Your task to perform on an android device: see creations saved in the google photos Image 0: 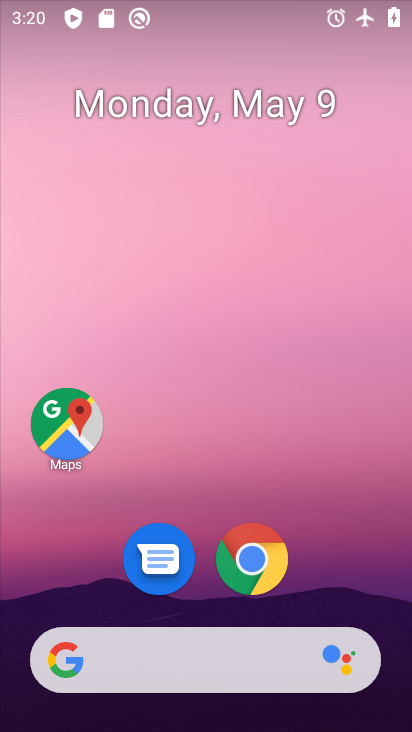
Step 0: drag from (231, 712) to (229, 183)
Your task to perform on an android device: see creations saved in the google photos Image 1: 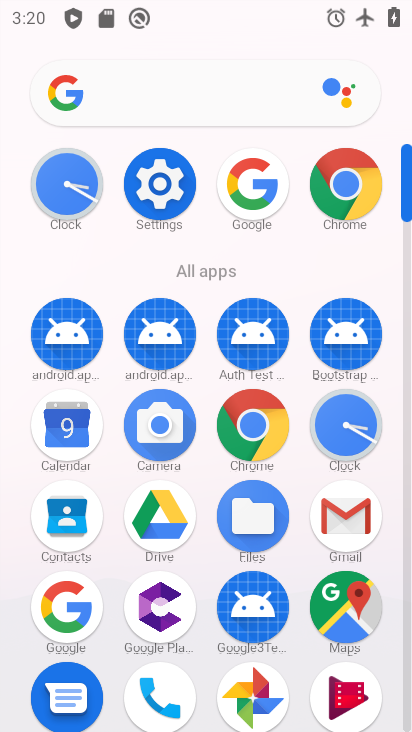
Step 1: click (257, 697)
Your task to perform on an android device: see creations saved in the google photos Image 2: 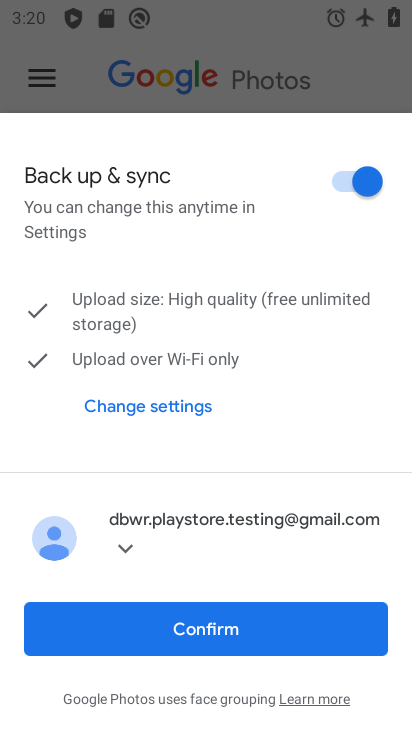
Step 2: click (228, 634)
Your task to perform on an android device: see creations saved in the google photos Image 3: 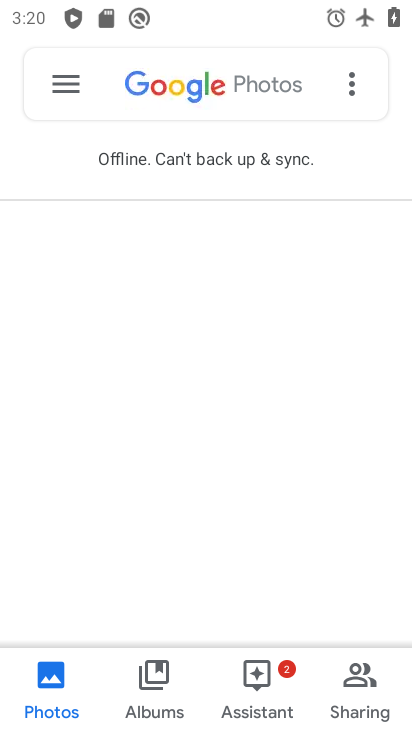
Step 3: click (153, 88)
Your task to perform on an android device: see creations saved in the google photos Image 4: 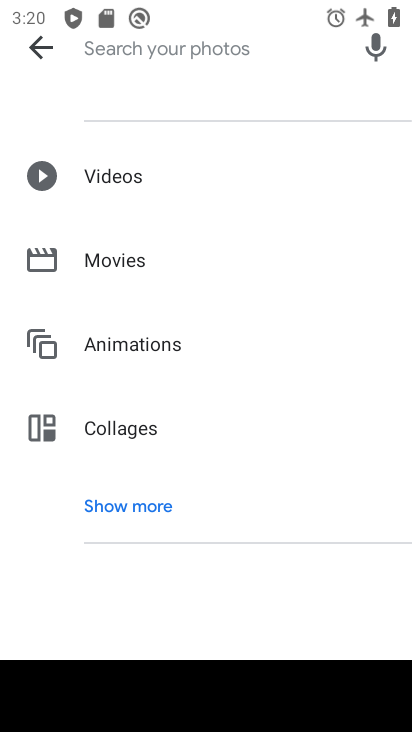
Step 4: click (131, 498)
Your task to perform on an android device: see creations saved in the google photos Image 5: 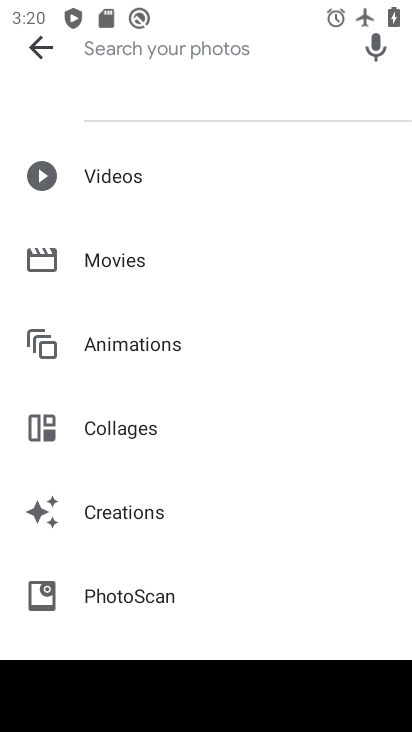
Step 5: click (129, 509)
Your task to perform on an android device: see creations saved in the google photos Image 6: 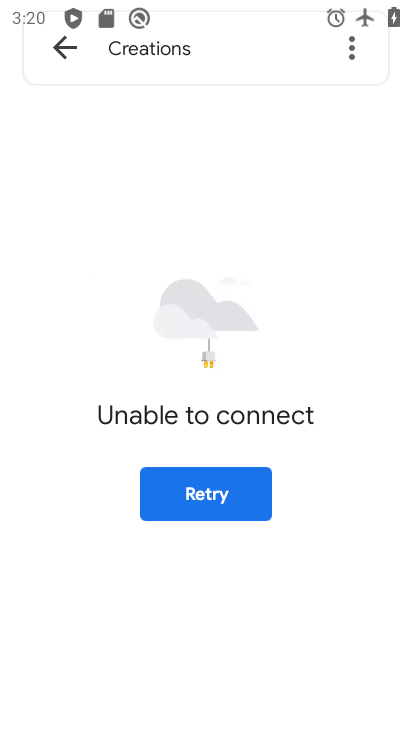
Step 6: task complete